Your task to perform on an android device: turn off smart reply in the gmail app Image 0: 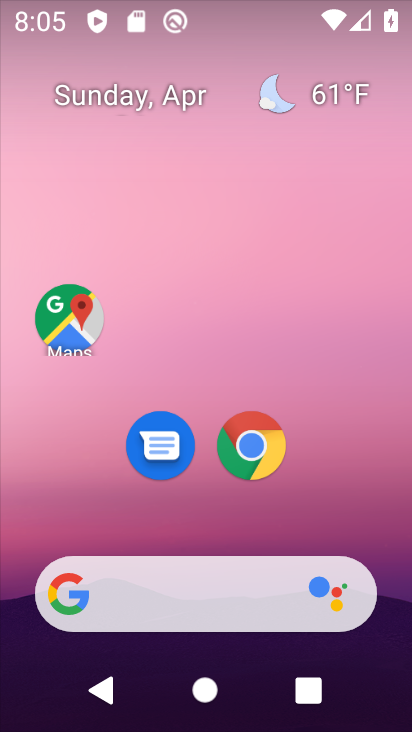
Step 0: drag from (231, 512) to (252, 94)
Your task to perform on an android device: turn off smart reply in the gmail app Image 1: 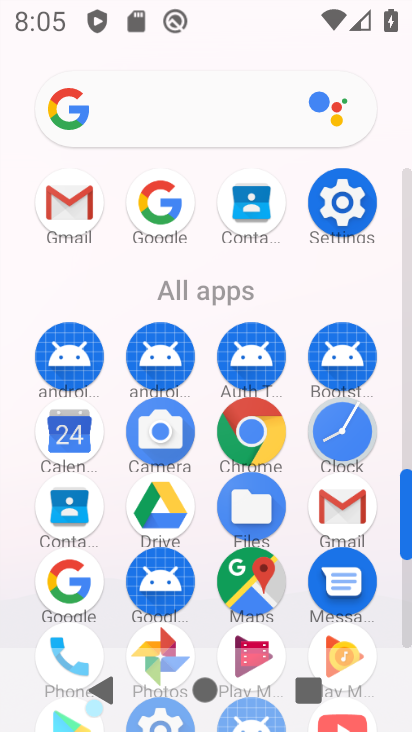
Step 1: click (79, 212)
Your task to perform on an android device: turn off smart reply in the gmail app Image 2: 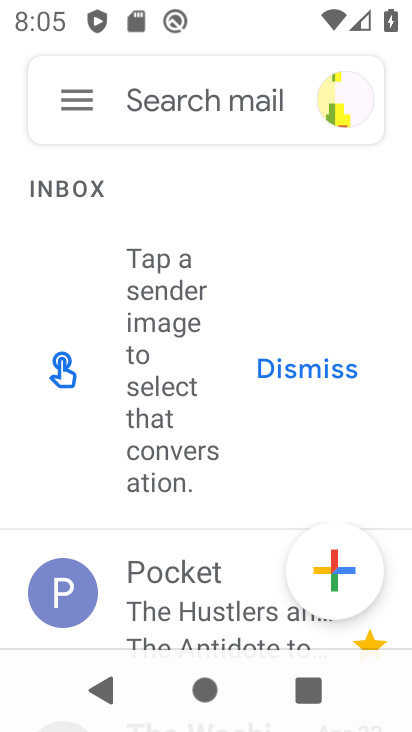
Step 2: click (75, 95)
Your task to perform on an android device: turn off smart reply in the gmail app Image 3: 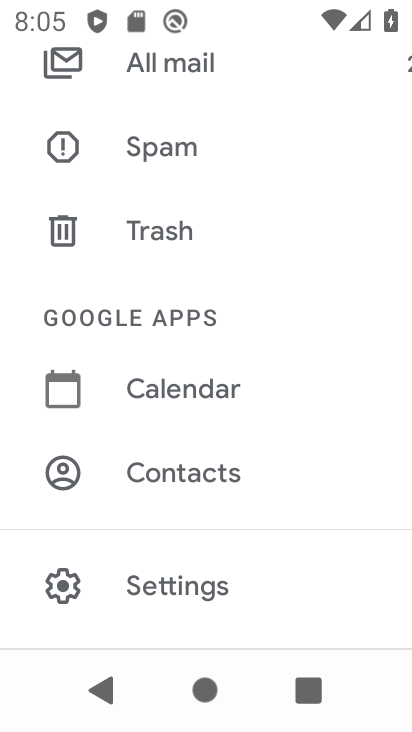
Step 3: click (190, 576)
Your task to perform on an android device: turn off smart reply in the gmail app Image 4: 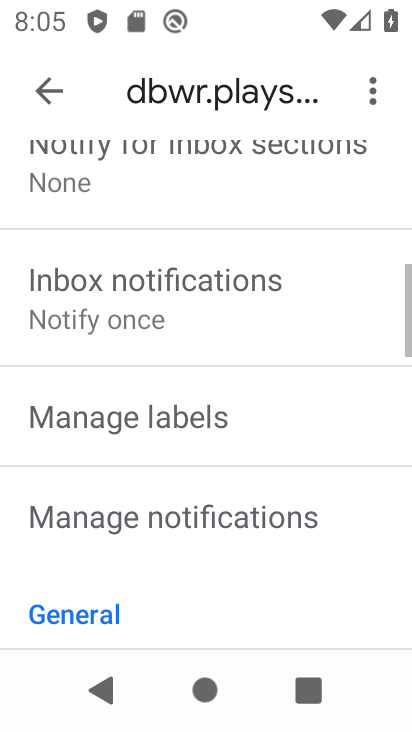
Step 4: drag from (237, 527) to (269, 185)
Your task to perform on an android device: turn off smart reply in the gmail app Image 5: 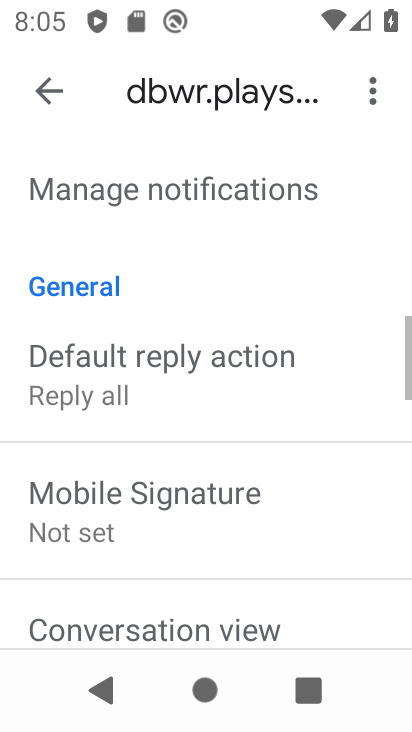
Step 5: drag from (246, 495) to (262, 216)
Your task to perform on an android device: turn off smart reply in the gmail app Image 6: 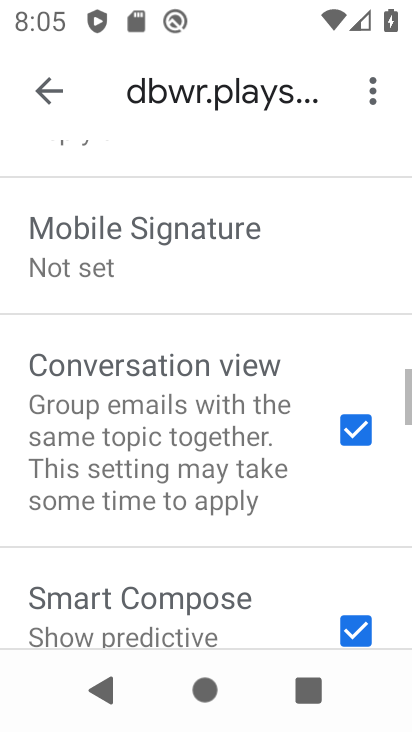
Step 6: drag from (219, 539) to (273, 267)
Your task to perform on an android device: turn off smart reply in the gmail app Image 7: 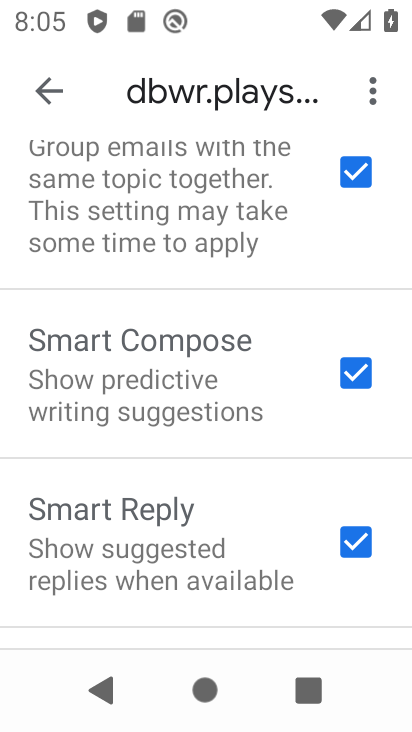
Step 7: drag from (254, 572) to (275, 456)
Your task to perform on an android device: turn off smart reply in the gmail app Image 8: 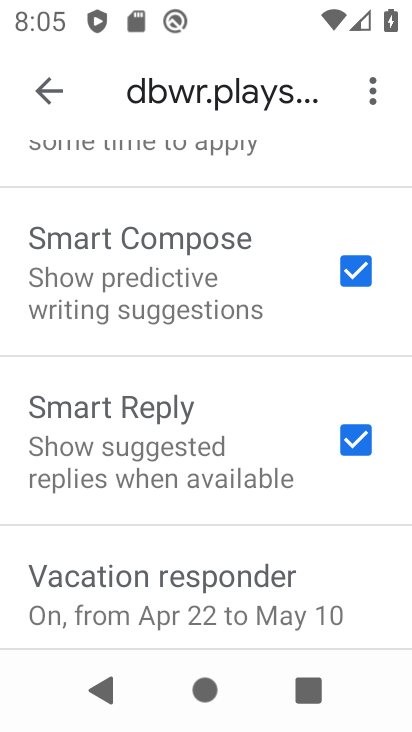
Step 8: click (360, 422)
Your task to perform on an android device: turn off smart reply in the gmail app Image 9: 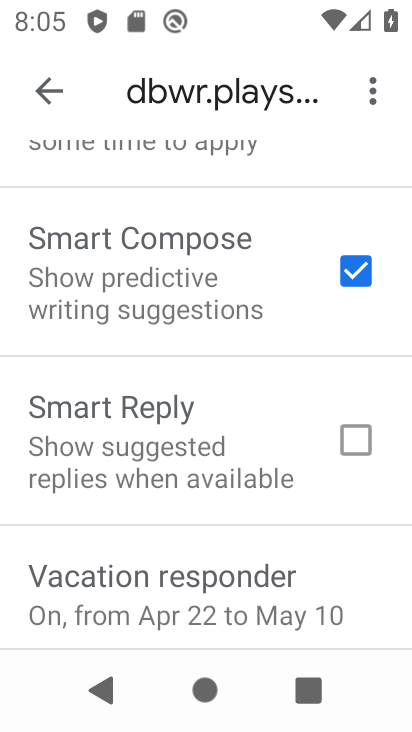
Step 9: task complete